Your task to perform on an android device: Open sound settings Image 0: 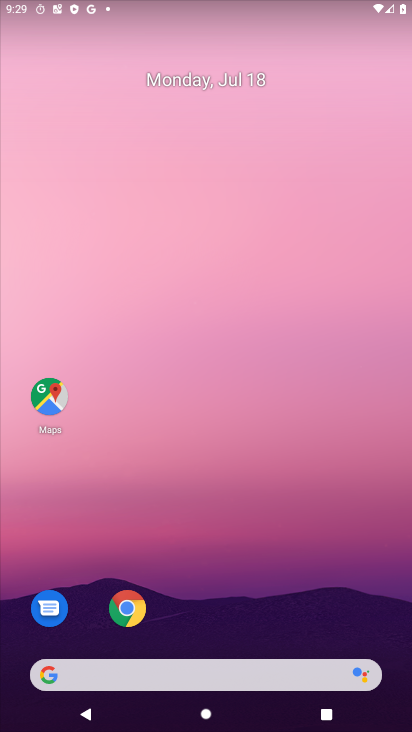
Step 0: drag from (192, 561) to (129, 195)
Your task to perform on an android device: Open sound settings Image 1: 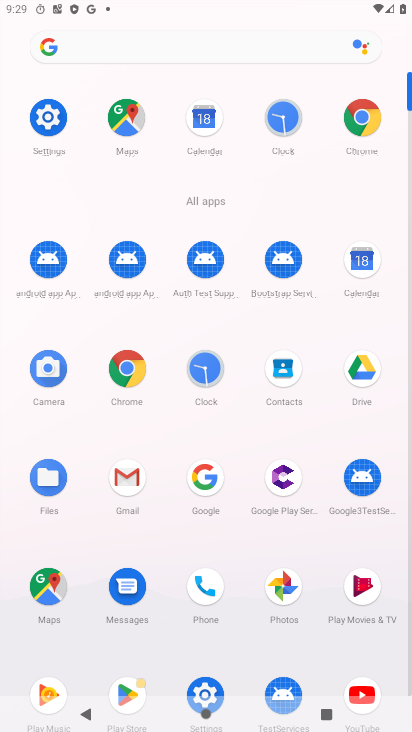
Step 1: click (50, 127)
Your task to perform on an android device: Open sound settings Image 2: 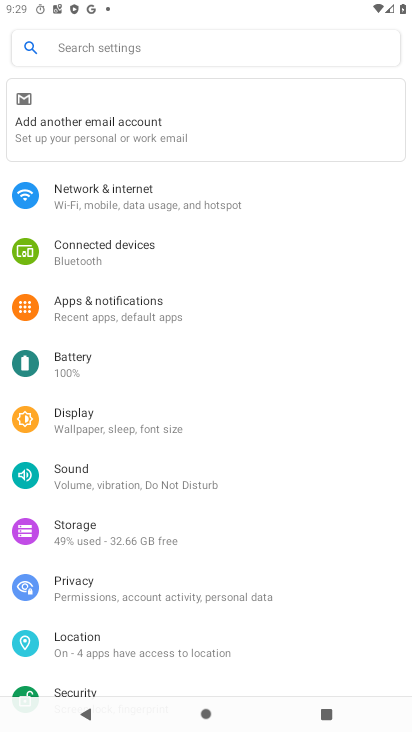
Step 2: click (77, 483)
Your task to perform on an android device: Open sound settings Image 3: 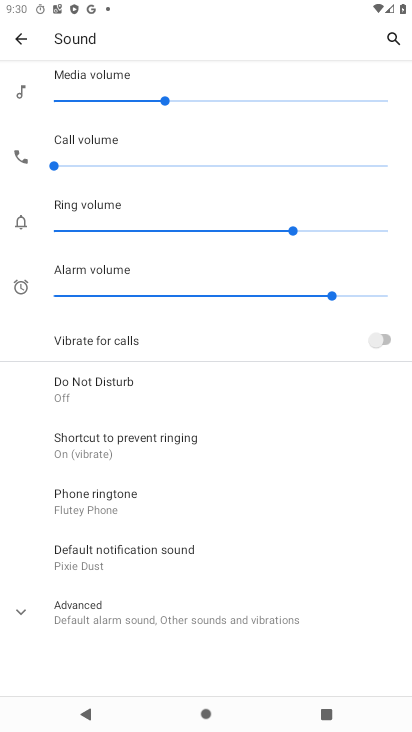
Step 3: task complete